Your task to perform on an android device: Empty the shopping cart on amazon. Add "jbl charge 4" to the cart on amazon Image 0: 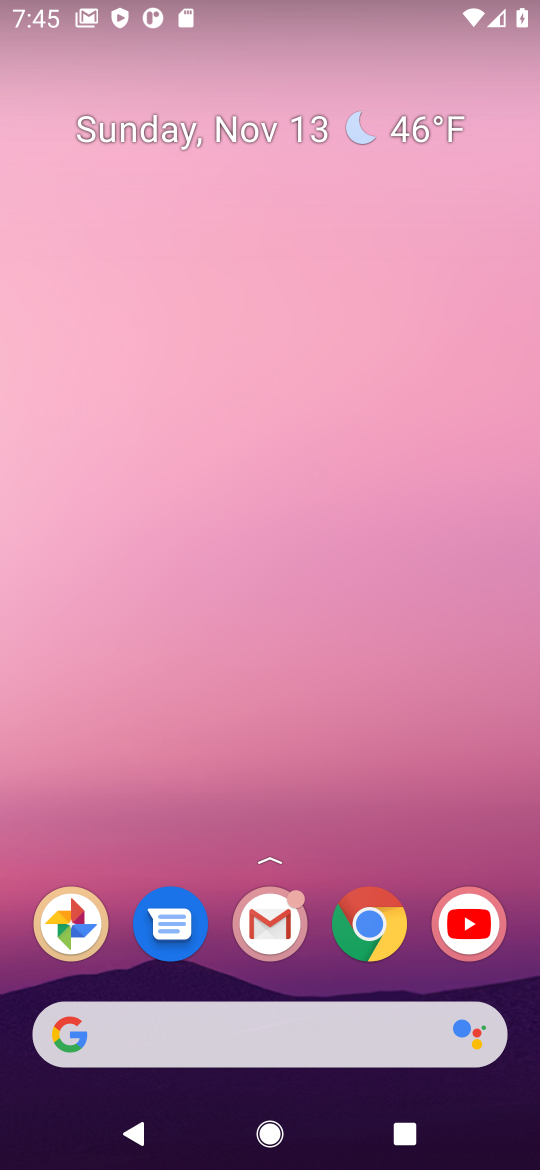
Step 0: click (373, 928)
Your task to perform on an android device: Empty the shopping cart on amazon. Add "jbl charge 4" to the cart on amazon Image 1: 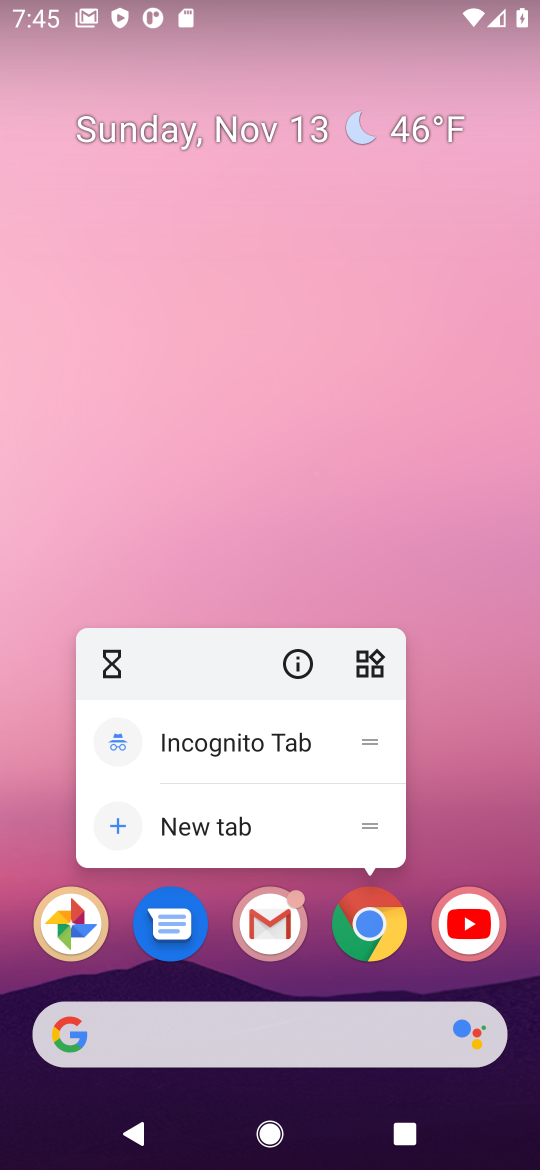
Step 1: click (373, 928)
Your task to perform on an android device: Empty the shopping cart on amazon. Add "jbl charge 4" to the cart on amazon Image 2: 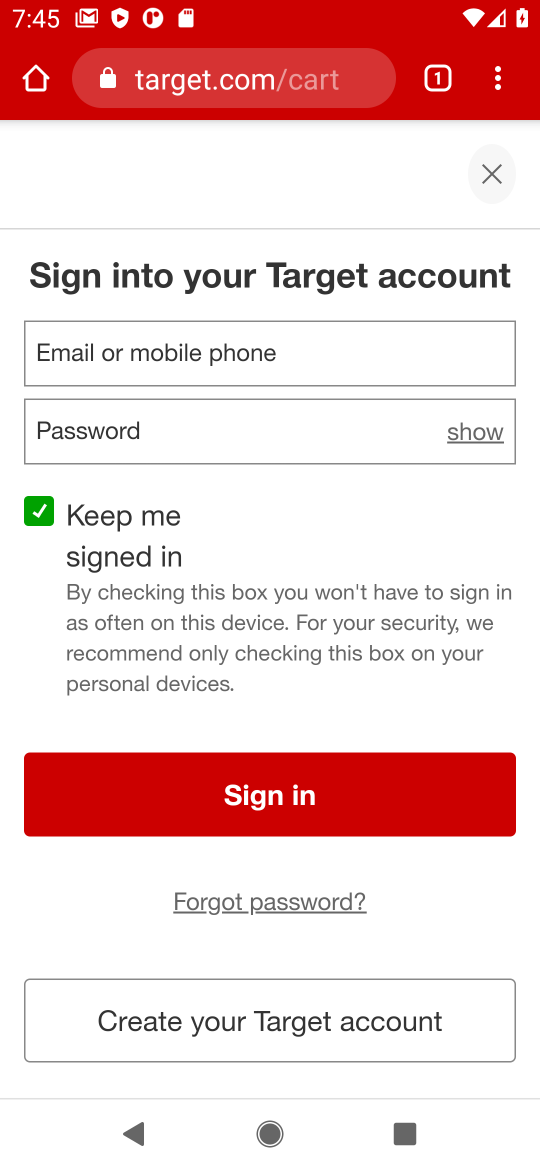
Step 2: click (491, 165)
Your task to perform on an android device: Empty the shopping cart on amazon. Add "jbl charge 4" to the cart on amazon Image 3: 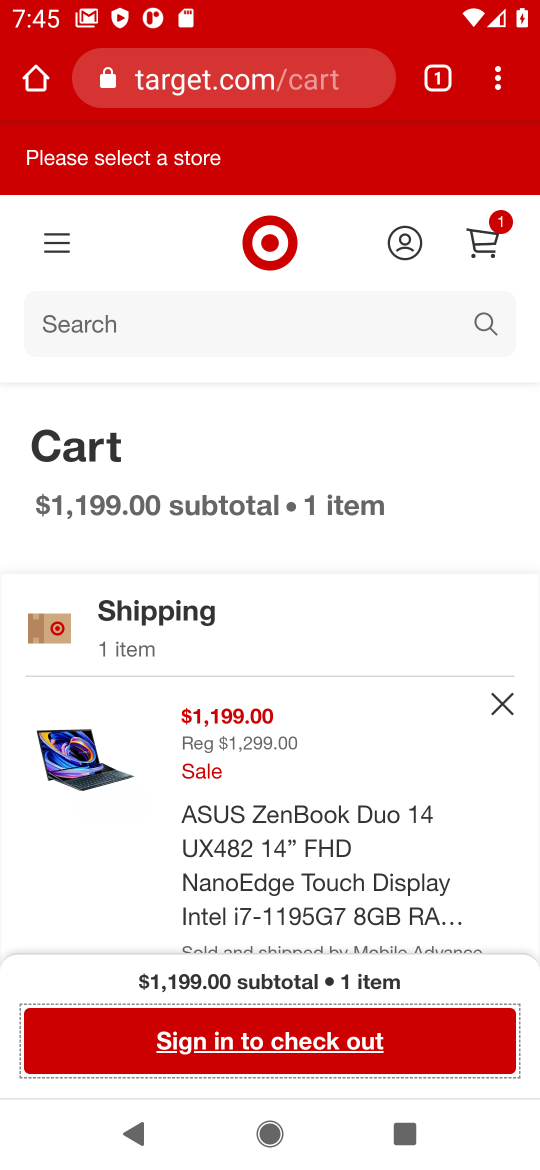
Step 3: click (277, 73)
Your task to perform on an android device: Empty the shopping cart on amazon. Add "jbl charge 4" to the cart on amazon Image 4: 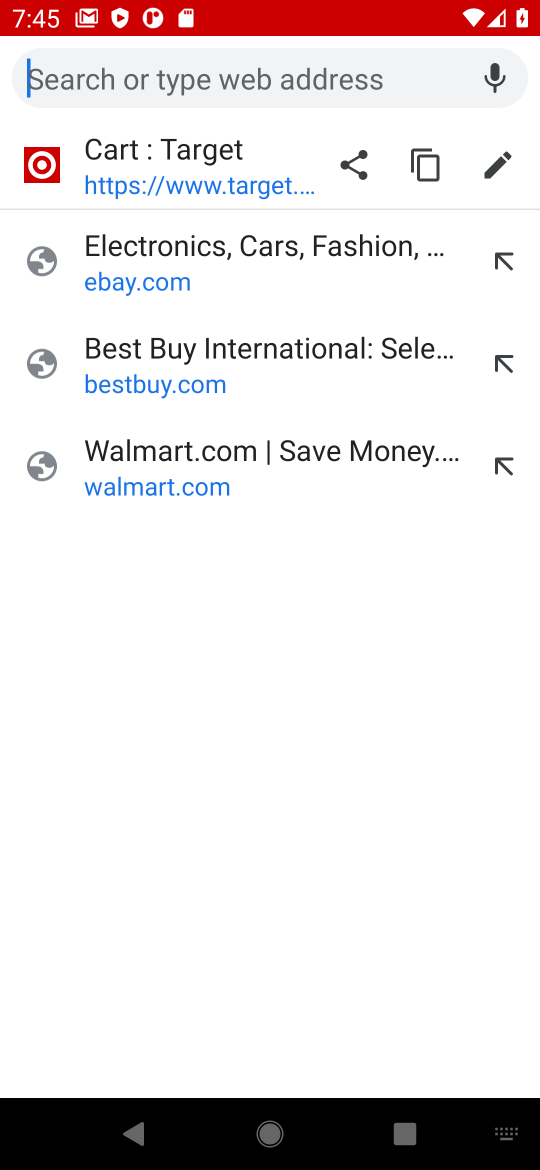
Step 4: type " amazon"
Your task to perform on an android device: Empty the shopping cart on amazon. Add "jbl charge 4" to the cart on amazon Image 5: 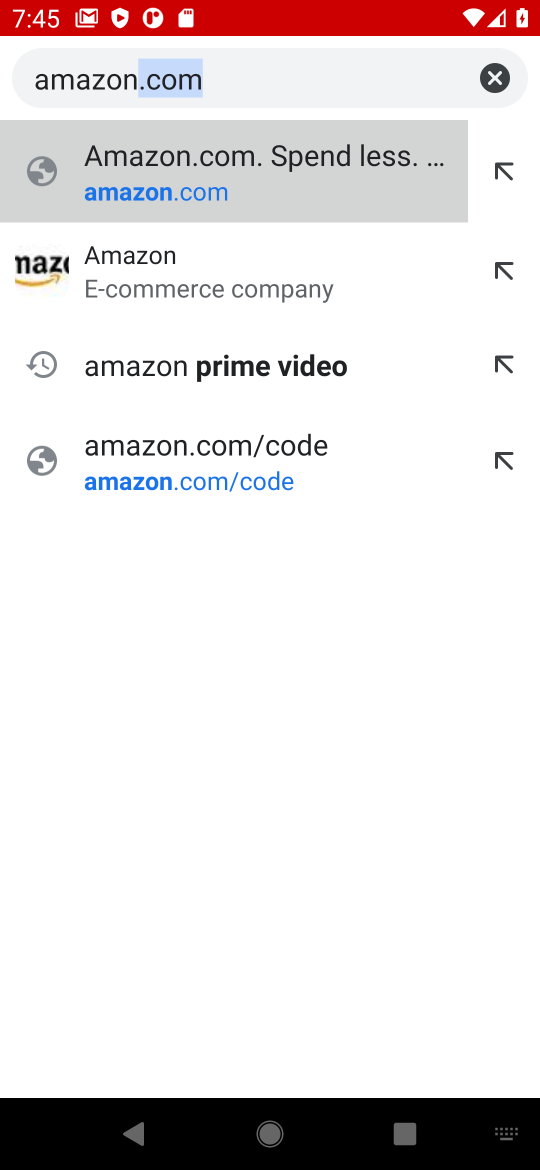
Step 5: press enter
Your task to perform on an android device: Empty the shopping cart on amazon. Add "jbl charge 4" to the cart on amazon Image 6: 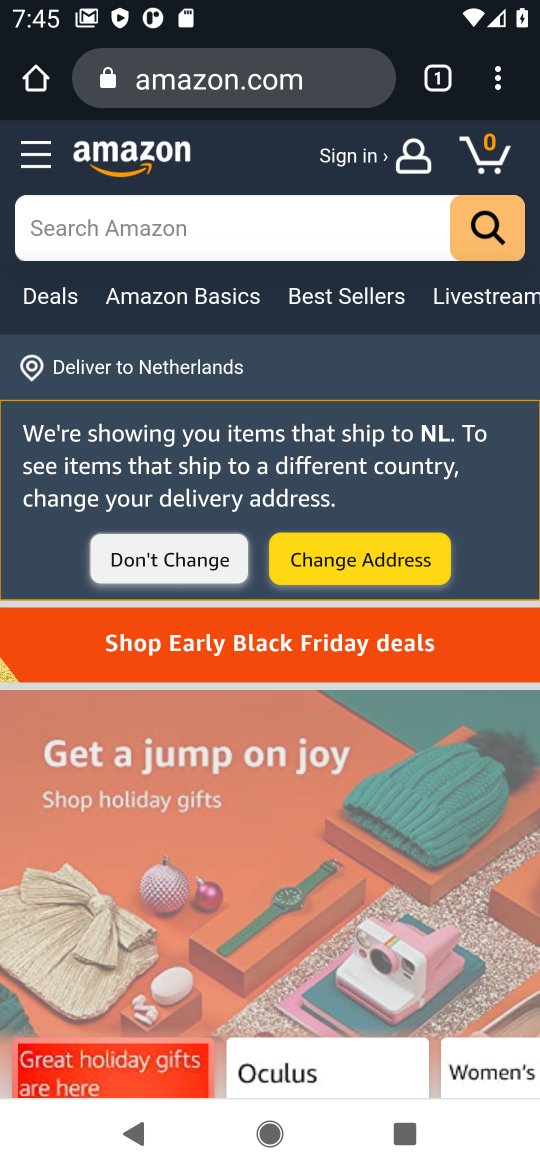
Step 6: click (220, 231)
Your task to perform on an android device: Empty the shopping cart on amazon. Add "jbl charge 4" to the cart on amazon Image 7: 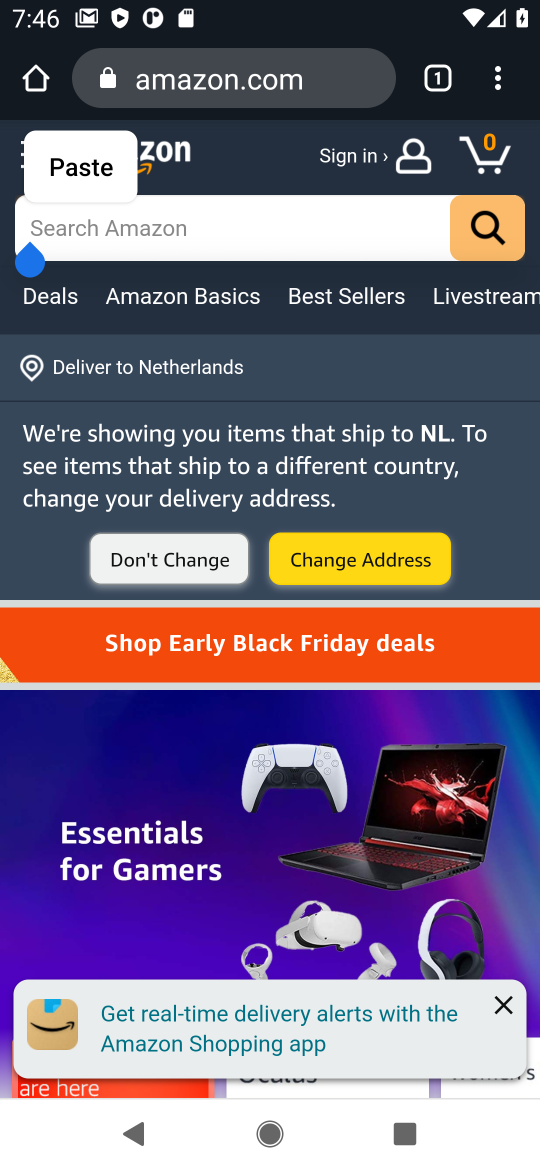
Step 7: type "jbl charge 4"
Your task to perform on an android device: Empty the shopping cart on amazon. Add "jbl charge 4" to the cart on amazon Image 8: 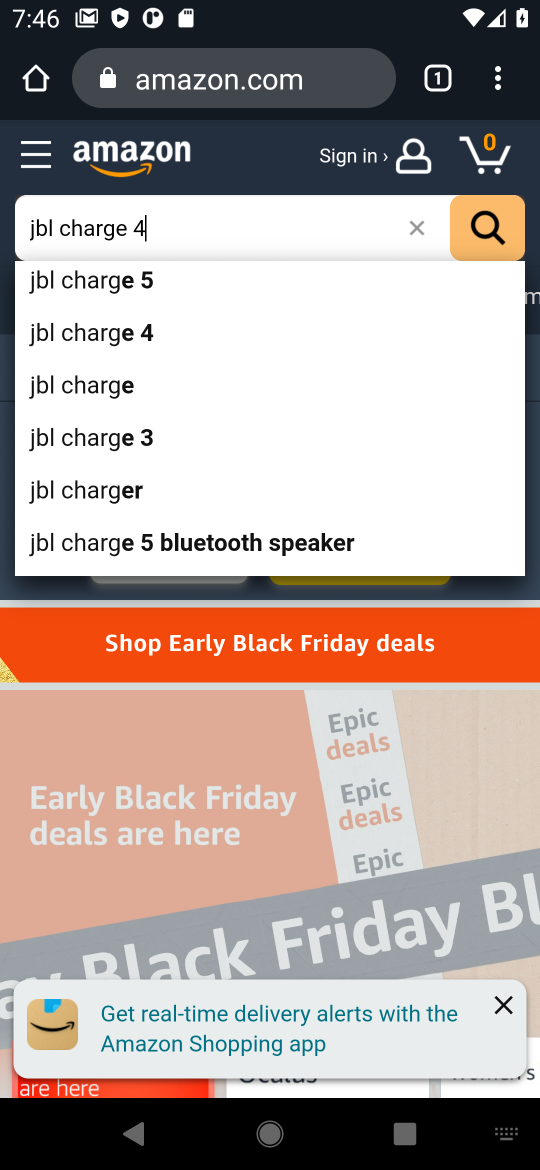
Step 8: press enter
Your task to perform on an android device: Empty the shopping cart on amazon. Add "jbl charge 4" to the cart on amazon Image 9: 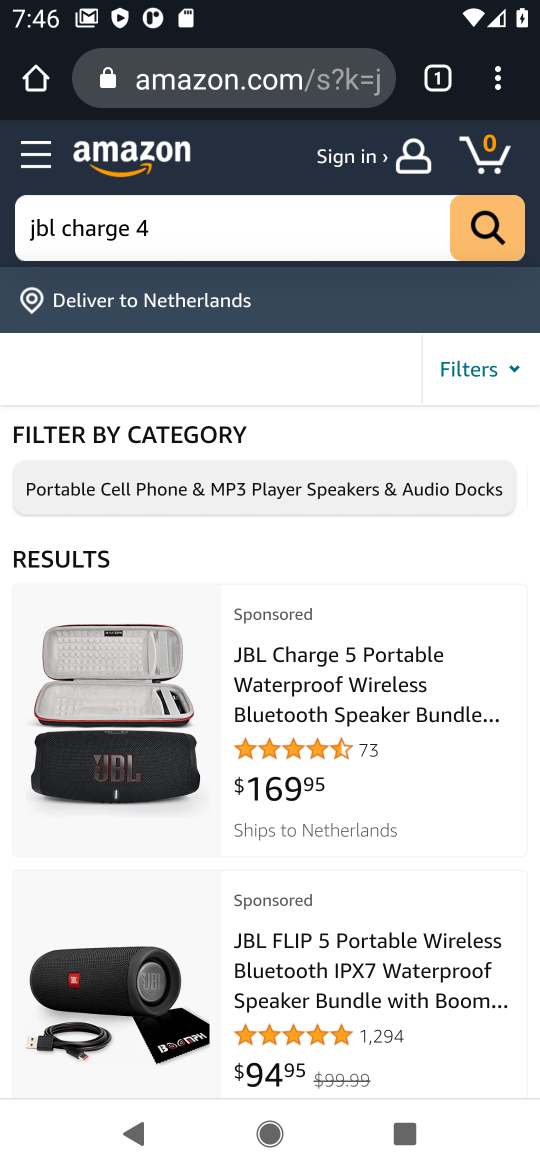
Step 9: drag from (319, 1041) to (368, 619)
Your task to perform on an android device: Empty the shopping cart on amazon. Add "jbl charge 4" to the cart on amazon Image 10: 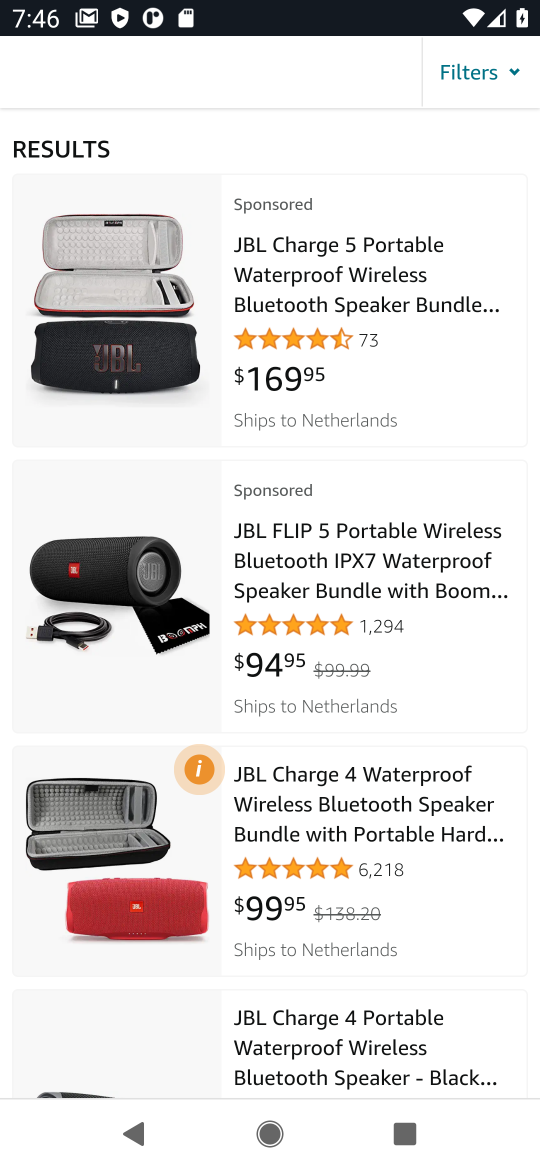
Step 10: click (354, 799)
Your task to perform on an android device: Empty the shopping cart on amazon. Add "jbl charge 4" to the cart on amazon Image 11: 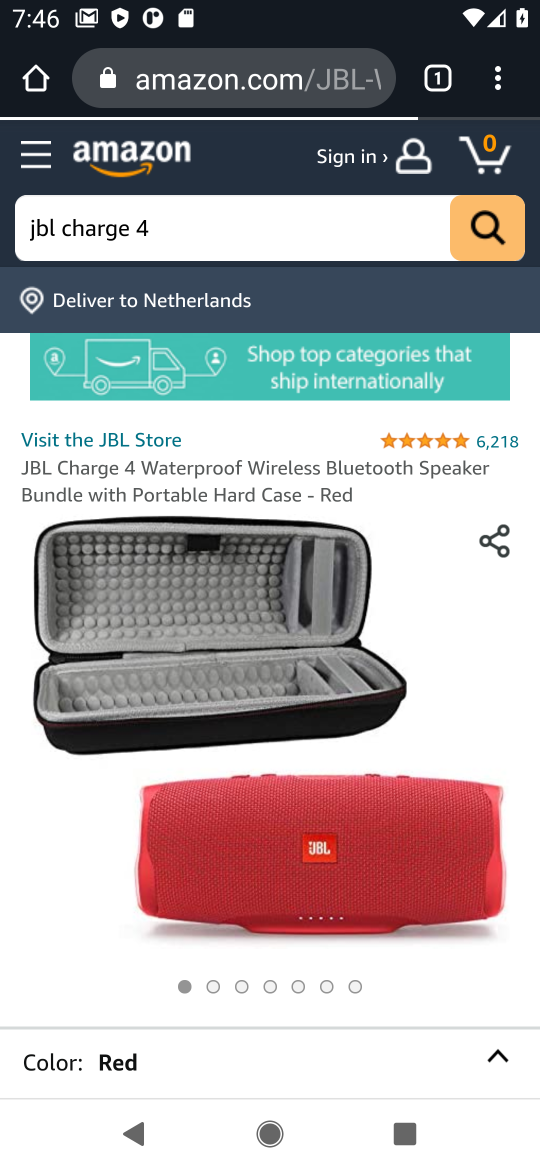
Step 11: drag from (63, 910) to (342, 240)
Your task to perform on an android device: Empty the shopping cart on amazon. Add "jbl charge 4" to the cart on amazon Image 12: 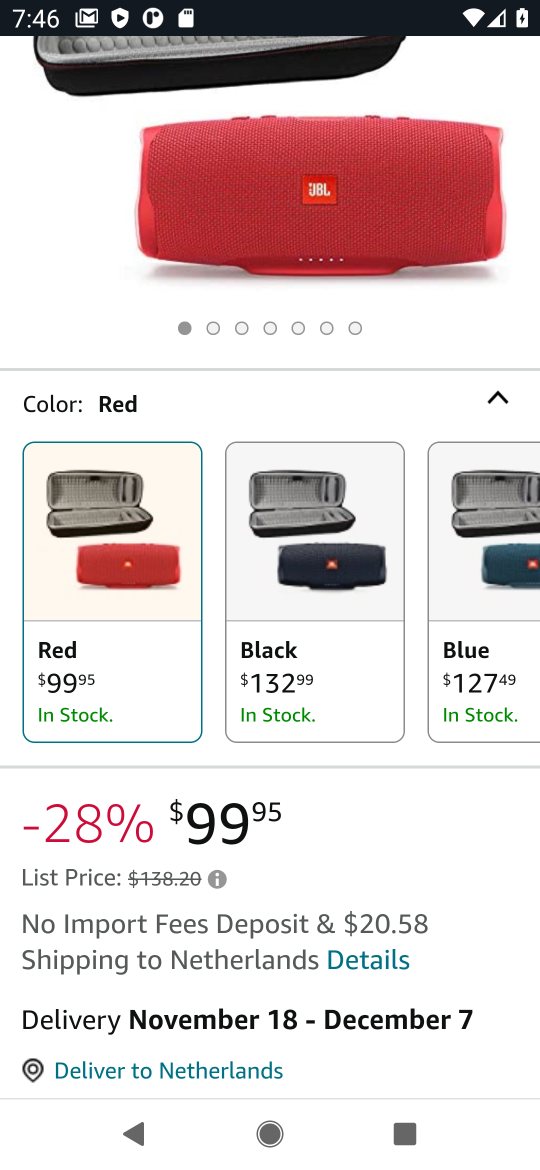
Step 12: drag from (397, 231) to (352, 881)
Your task to perform on an android device: Empty the shopping cart on amazon. Add "jbl charge 4" to the cart on amazon Image 13: 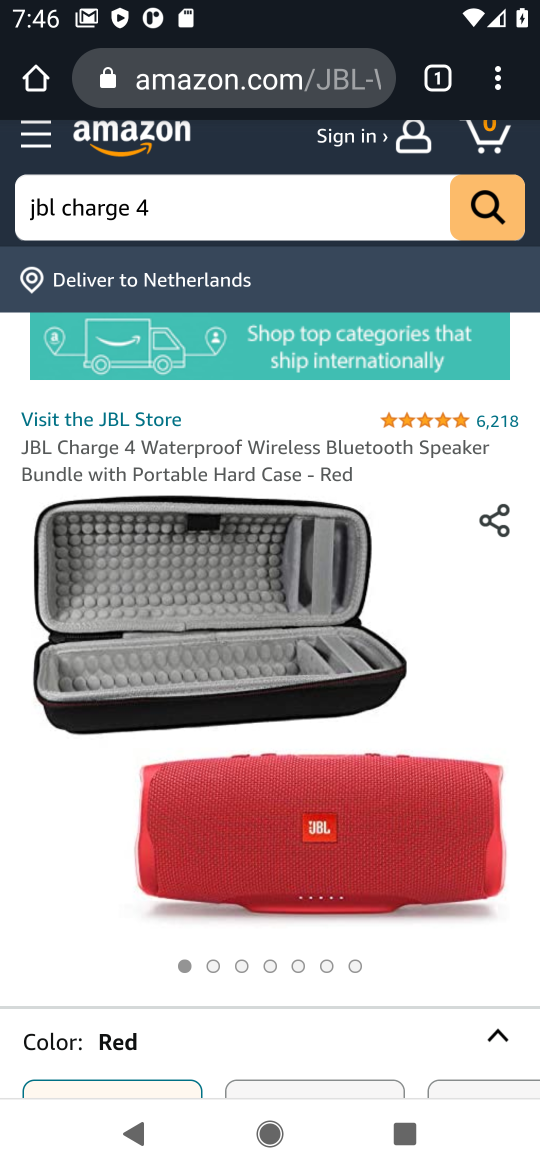
Step 13: drag from (226, 937) to (452, 241)
Your task to perform on an android device: Empty the shopping cart on amazon. Add "jbl charge 4" to the cart on amazon Image 14: 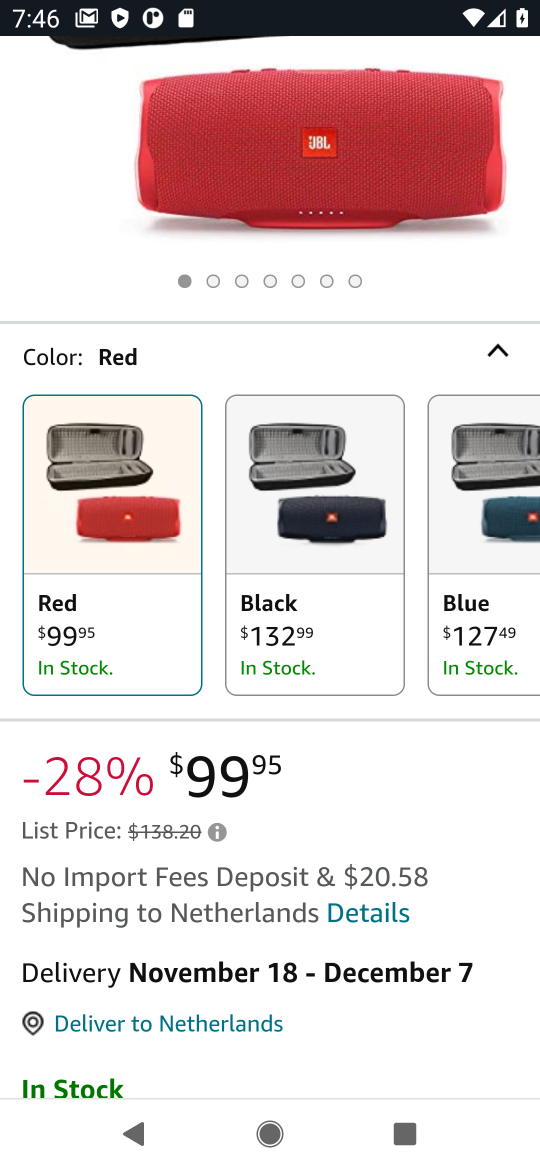
Step 14: drag from (298, 926) to (479, 353)
Your task to perform on an android device: Empty the shopping cart on amazon. Add "jbl charge 4" to the cart on amazon Image 15: 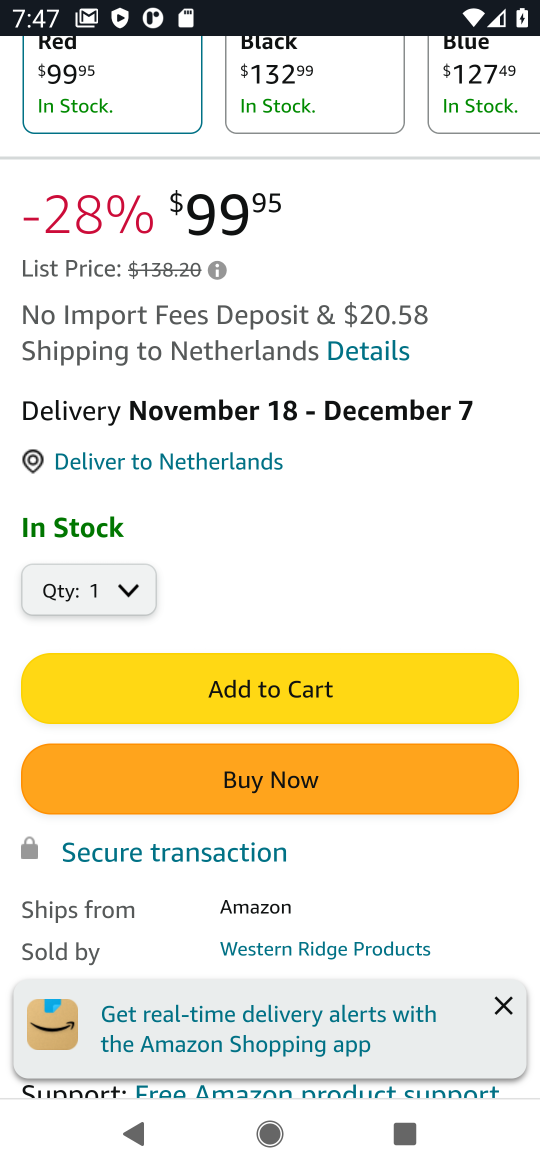
Step 15: click (306, 697)
Your task to perform on an android device: Empty the shopping cart on amazon. Add "jbl charge 4" to the cart on amazon Image 16: 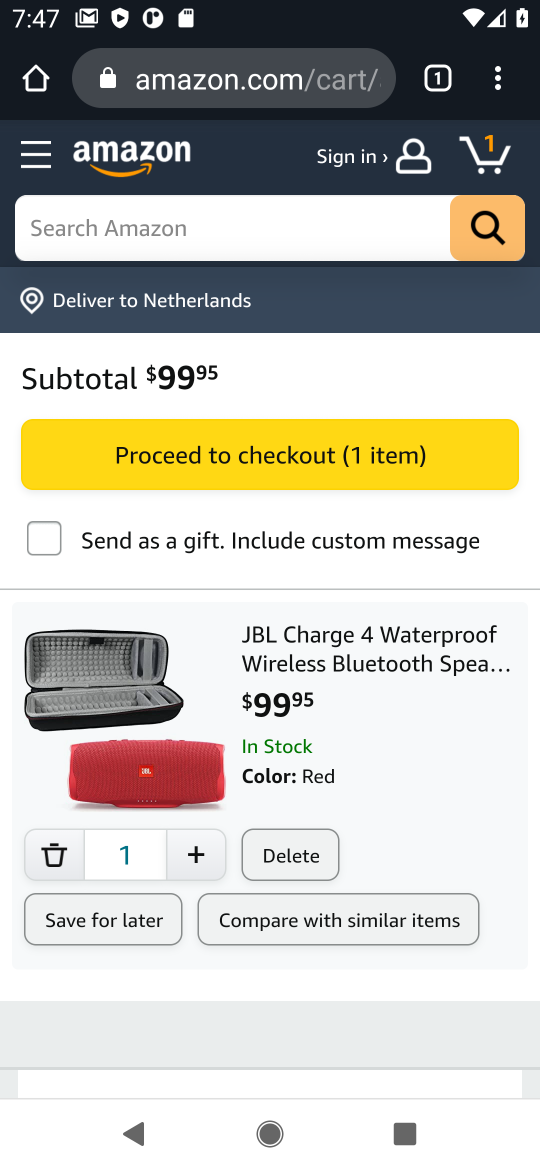
Step 16: task complete